Your task to perform on an android device: Open sound settings Image 0: 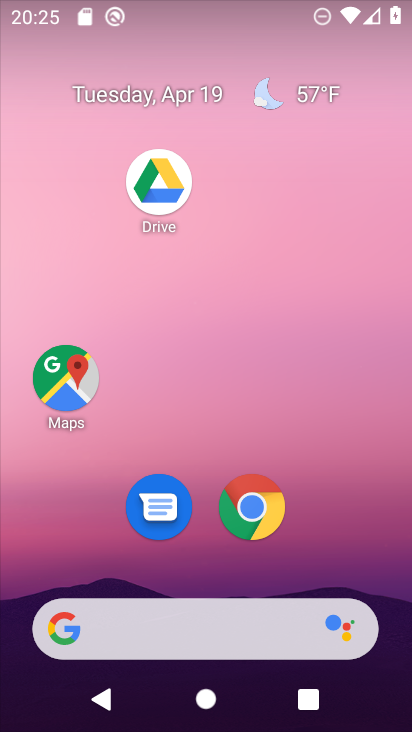
Step 0: drag from (347, 492) to (344, 113)
Your task to perform on an android device: Open sound settings Image 1: 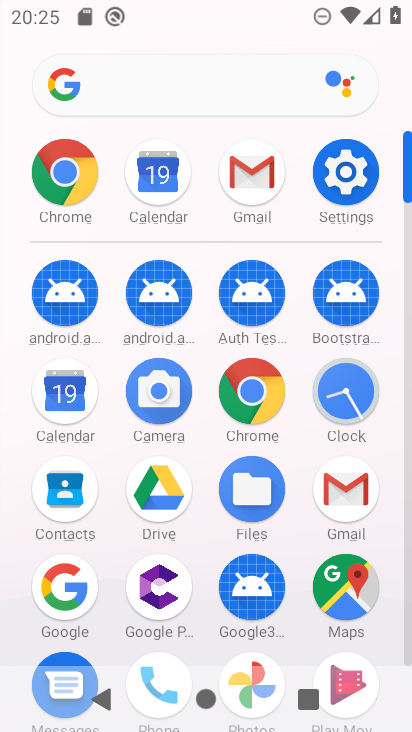
Step 1: click (351, 192)
Your task to perform on an android device: Open sound settings Image 2: 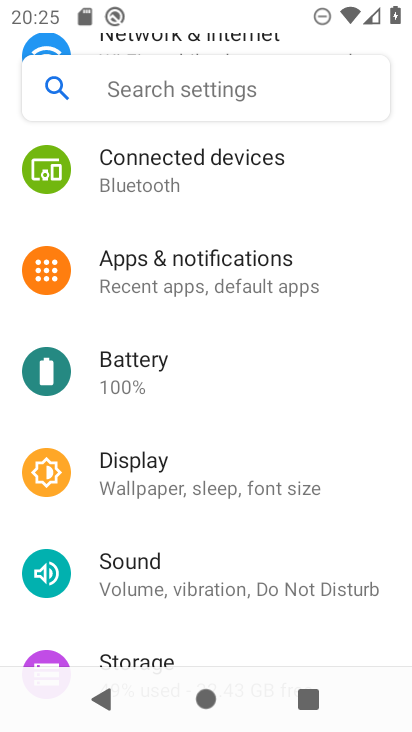
Step 2: click (238, 580)
Your task to perform on an android device: Open sound settings Image 3: 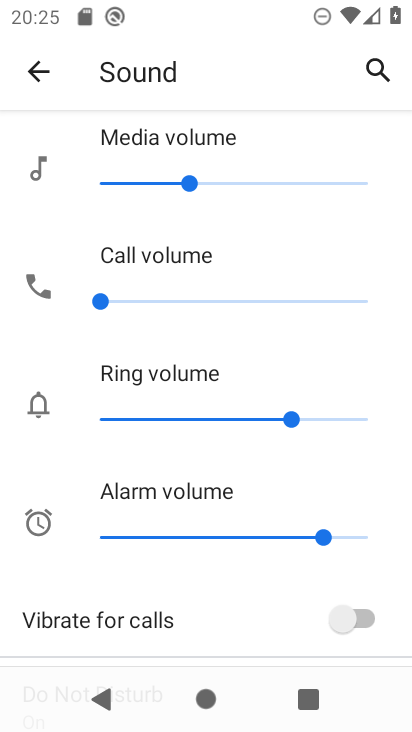
Step 3: task complete